Your task to perform on an android device: Open settings on Google Maps Image 0: 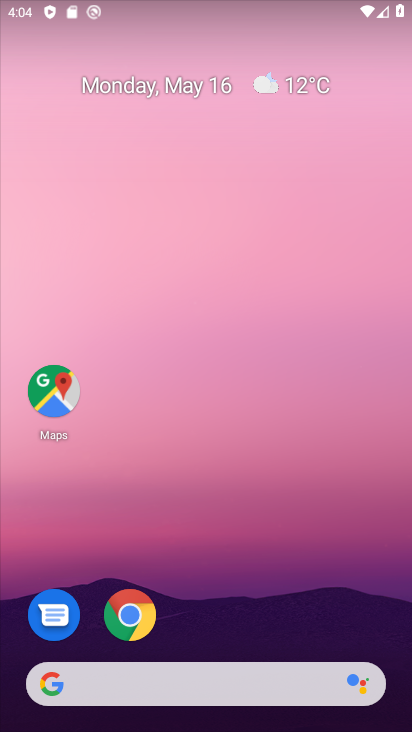
Step 0: drag from (246, 674) to (169, 65)
Your task to perform on an android device: Open settings on Google Maps Image 1: 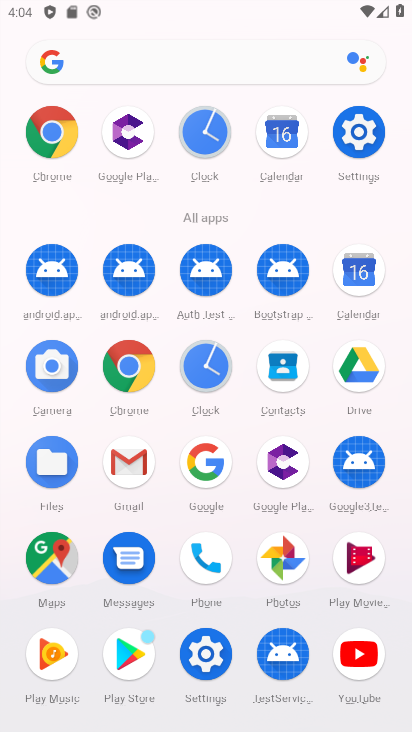
Step 1: click (54, 565)
Your task to perform on an android device: Open settings on Google Maps Image 2: 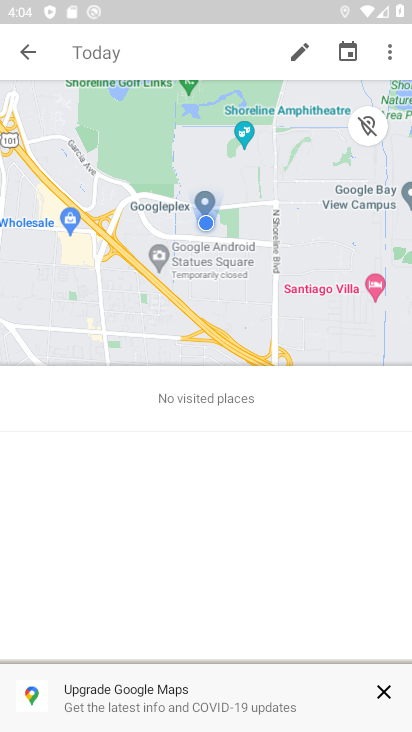
Step 2: click (32, 58)
Your task to perform on an android device: Open settings on Google Maps Image 3: 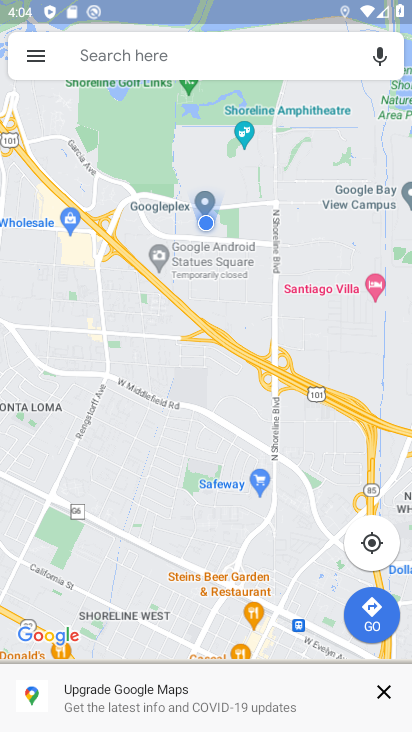
Step 3: click (32, 50)
Your task to perform on an android device: Open settings on Google Maps Image 4: 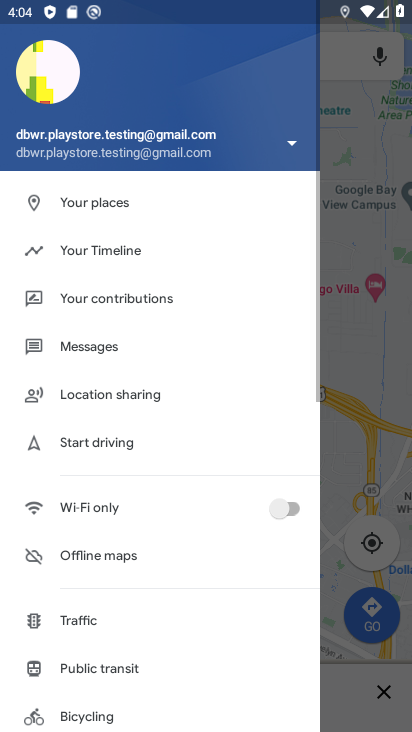
Step 4: drag from (129, 583) to (80, 234)
Your task to perform on an android device: Open settings on Google Maps Image 5: 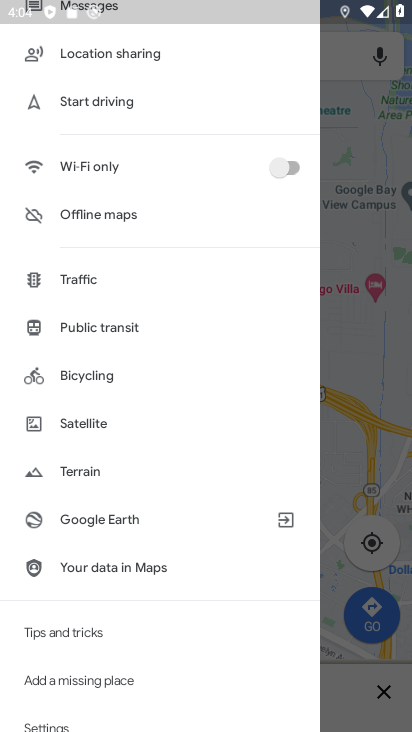
Step 5: drag from (107, 622) to (65, 135)
Your task to perform on an android device: Open settings on Google Maps Image 6: 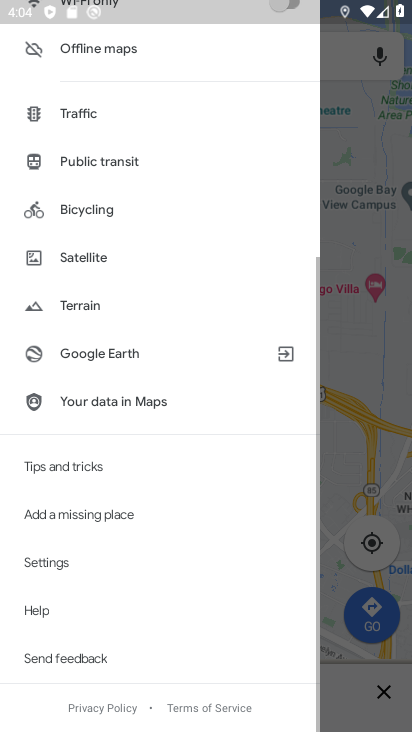
Step 6: click (77, 556)
Your task to perform on an android device: Open settings on Google Maps Image 7: 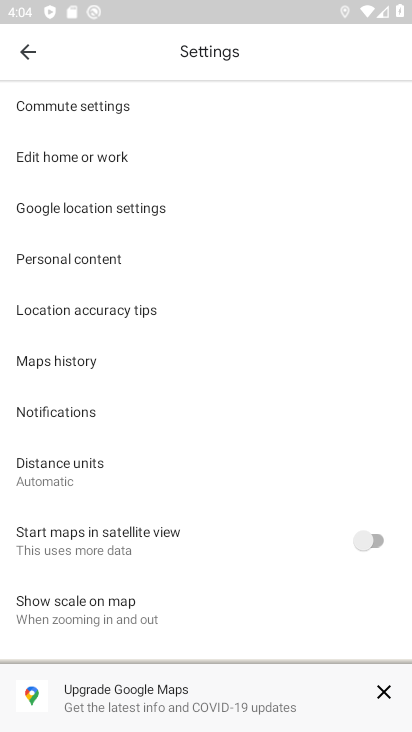
Step 7: task complete